Your task to perform on an android device: Open calendar and show me the third week of next month Image 0: 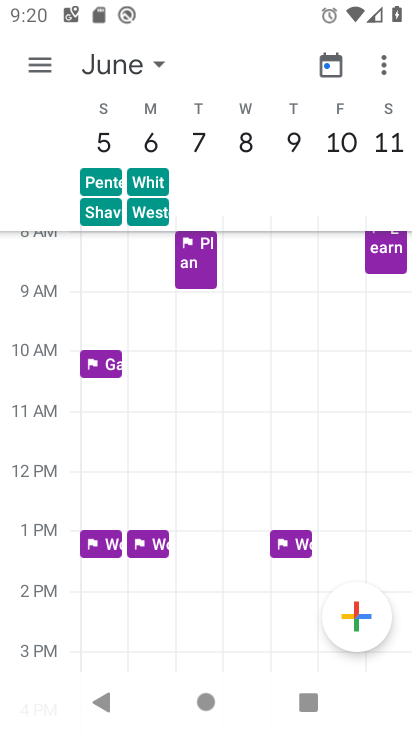
Step 0: drag from (389, 143) to (60, 154)
Your task to perform on an android device: Open calendar and show me the third week of next month Image 1: 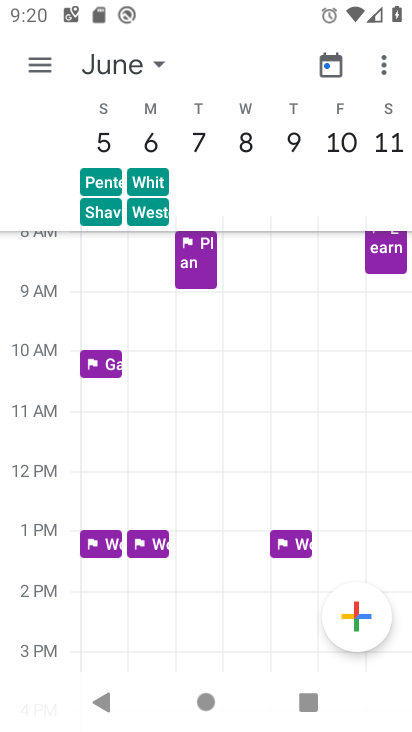
Step 1: task complete